Your task to perform on an android device: turn on javascript in the chrome app Image 0: 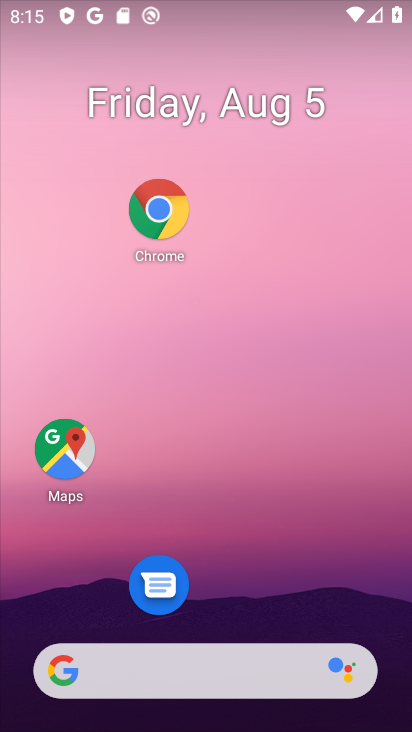
Step 0: drag from (218, 604) to (182, 23)
Your task to perform on an android device: turn on javascript in the chrome app Image 1: 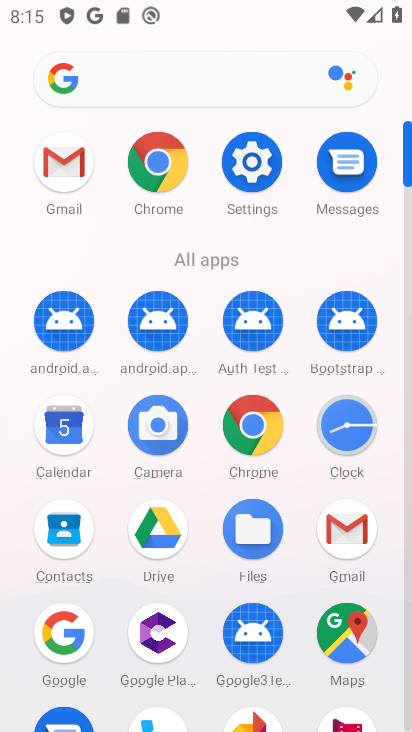
Step 1: click (163, 171)
Your task to perform on an android device: turn on javascript in the chrome app Image 2: 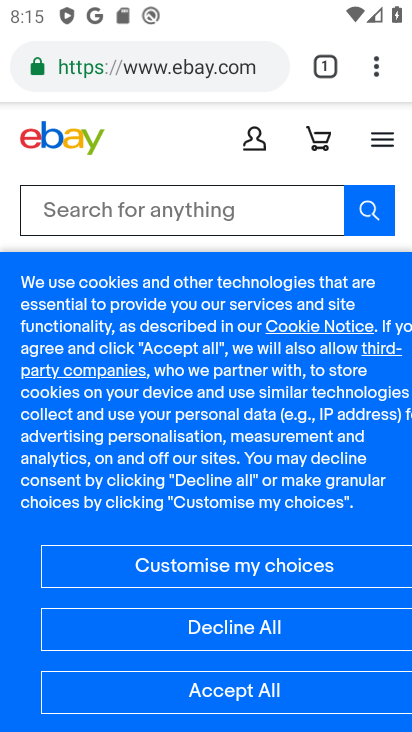
Step 2: click (376, 57)
Your task to perform on an android device: turn on javascript in the chrome app Image 3: 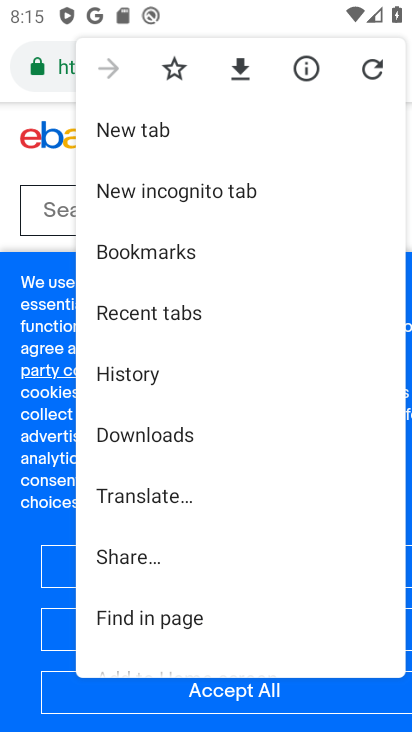
Step 3: drag from (210, 526) to (179, 79)
Your task to perform on an android device: turn on javascript in the chrome app Image 4: 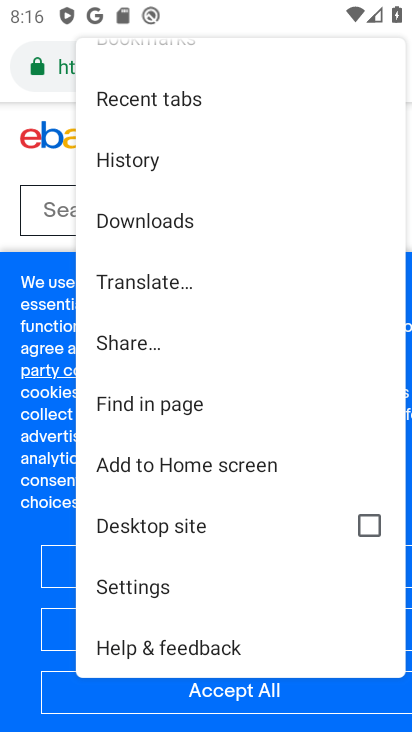
Step 4: click (156, 582)
Your task to perform on an android device: turn on javascript in the chrome app Image 5: 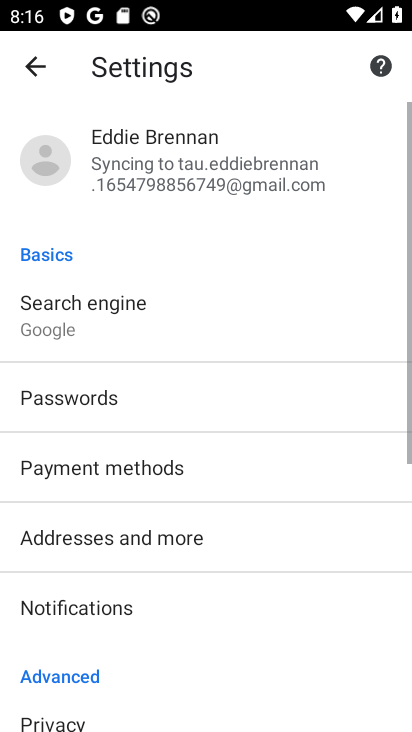
Step 5: drag from (156, 582) to (217, 8)
Your task to perform on an android device: turn on javascript in the chrome app Image 6: 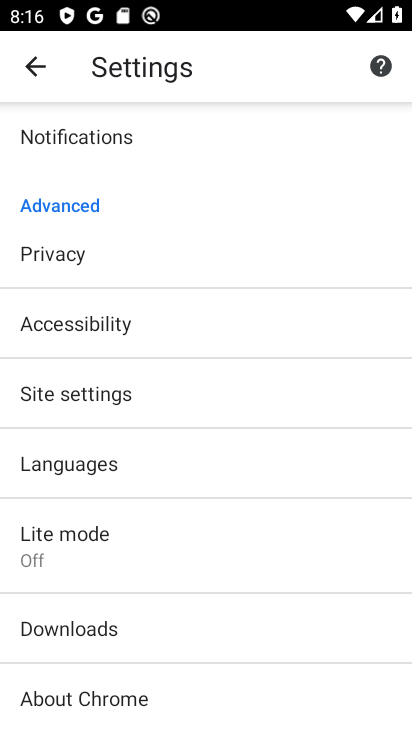
Step 6: click (96, 378)
Your task to perform on an android device: turn on javascript in the chrome app Image 7: 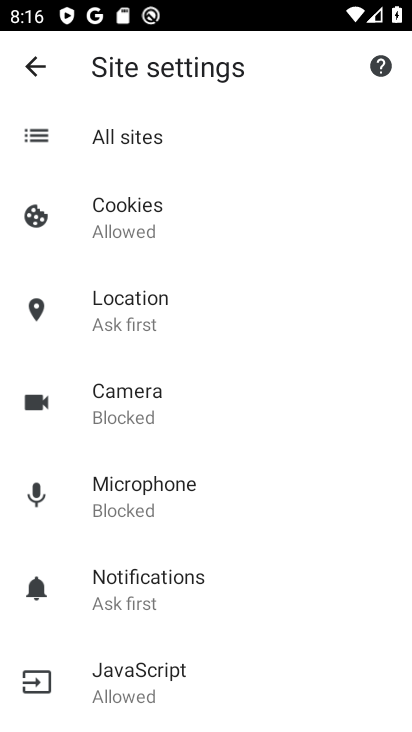
Step 7: click (140, 677)
Your task to perform on an android device: turn on javascript in the chrome app Image 8: 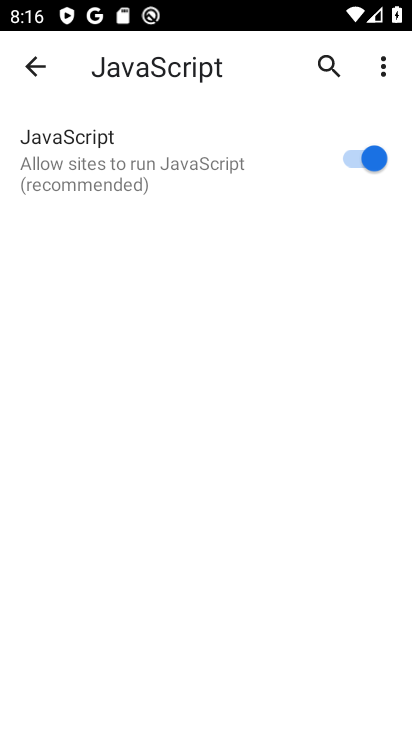
Step 8: task complete